Your task to perform on an android device: What's the news this afternoon? Image 0: 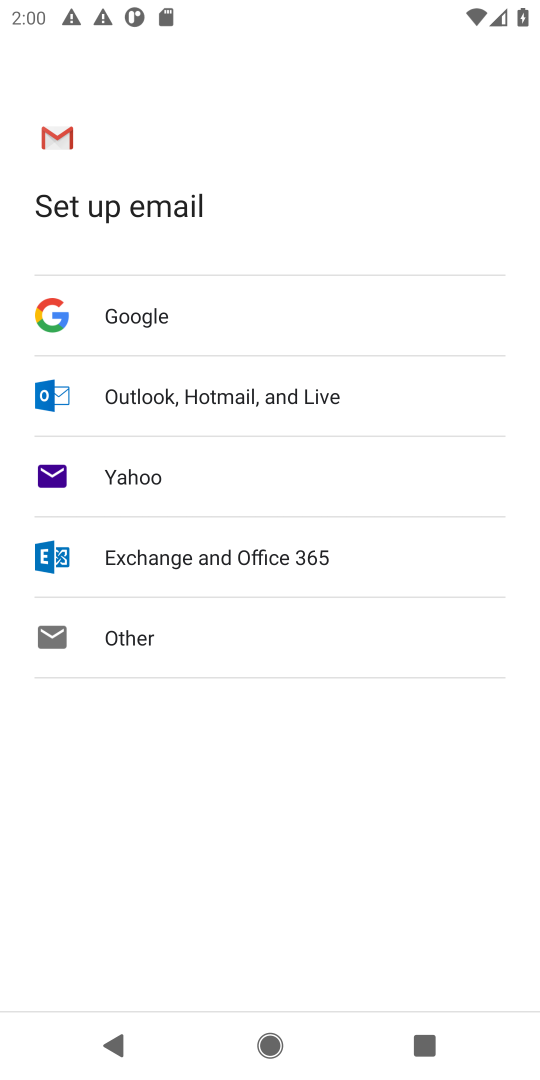
Step 0: press home button
Your task to perform on an android device: What's the news this afternoon? Image 1: 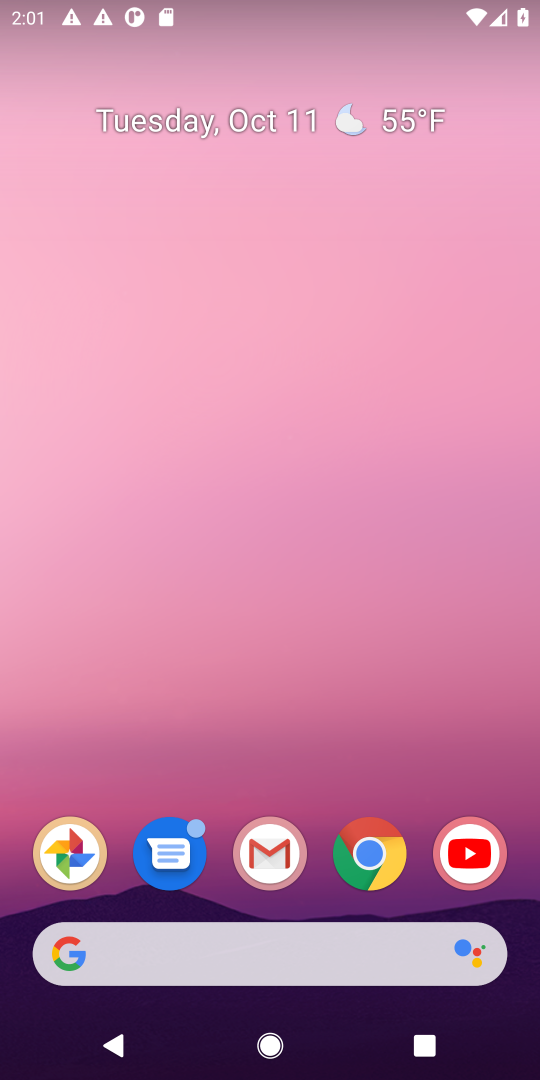
Step 1: drag from (240, 932) to (242, 97)
Your task to perform on an android device: What's the news this afternoon? Image 2: 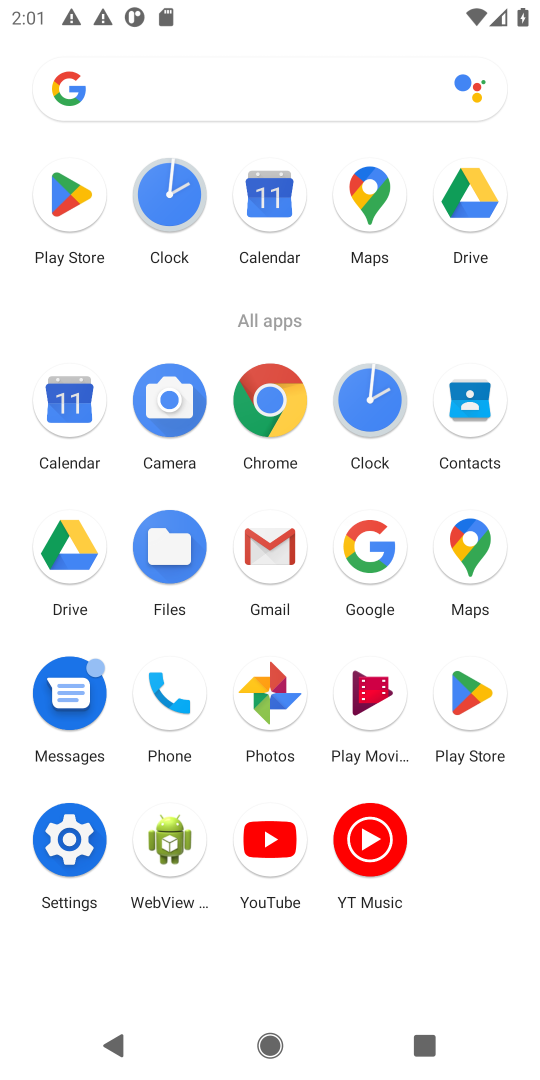
Step 2: click (368, 555)
Your task to perform on an android device: What's the news this afternoon? Image 3: 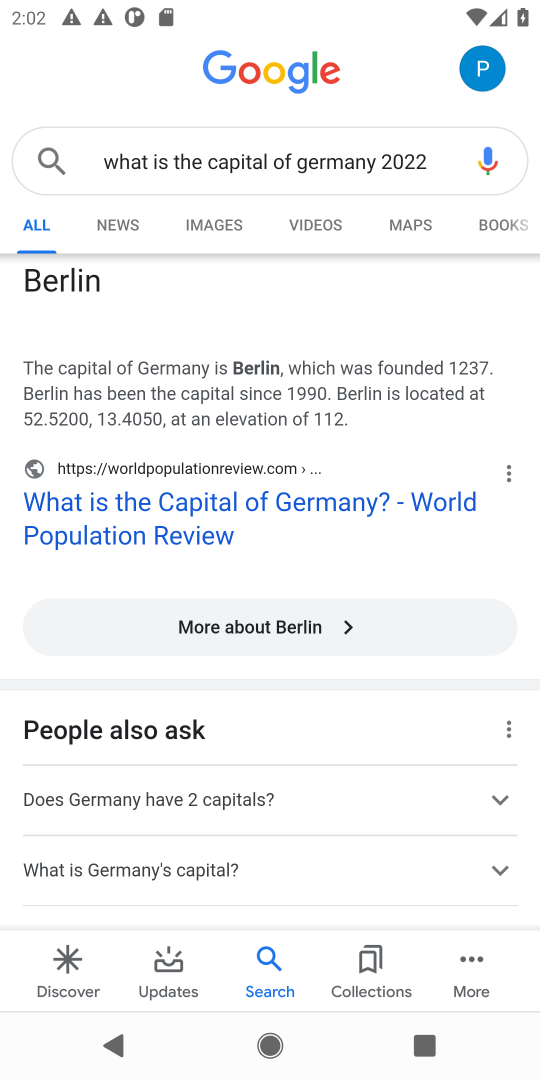
Step 3: click (271, 158)
Your task to perform on an android device: What's the news this afternoon? Image 4: 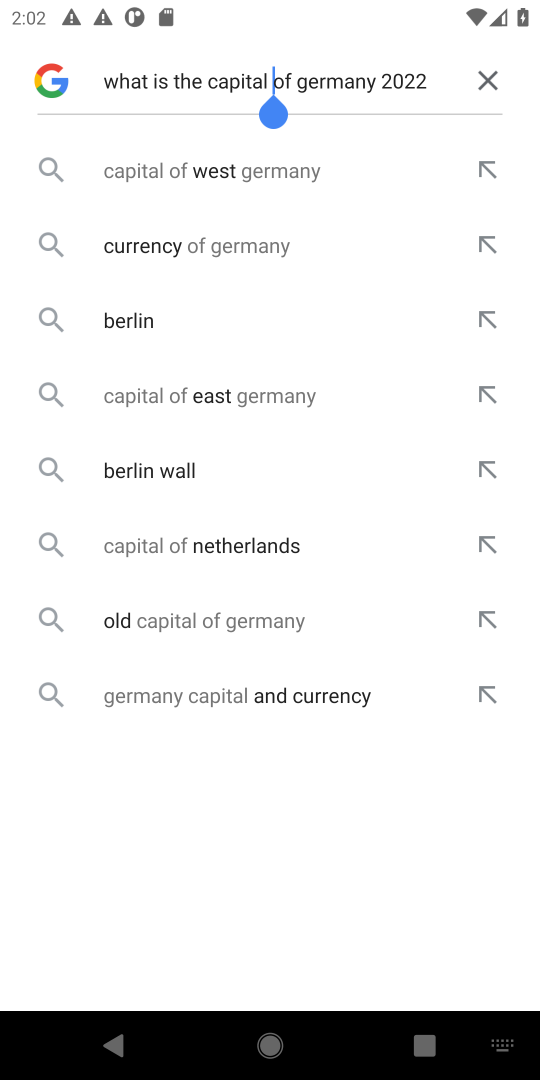
Step 4: click (484, 88)
Your task to perform on an android device: What's the news this afternoon? Image 5: 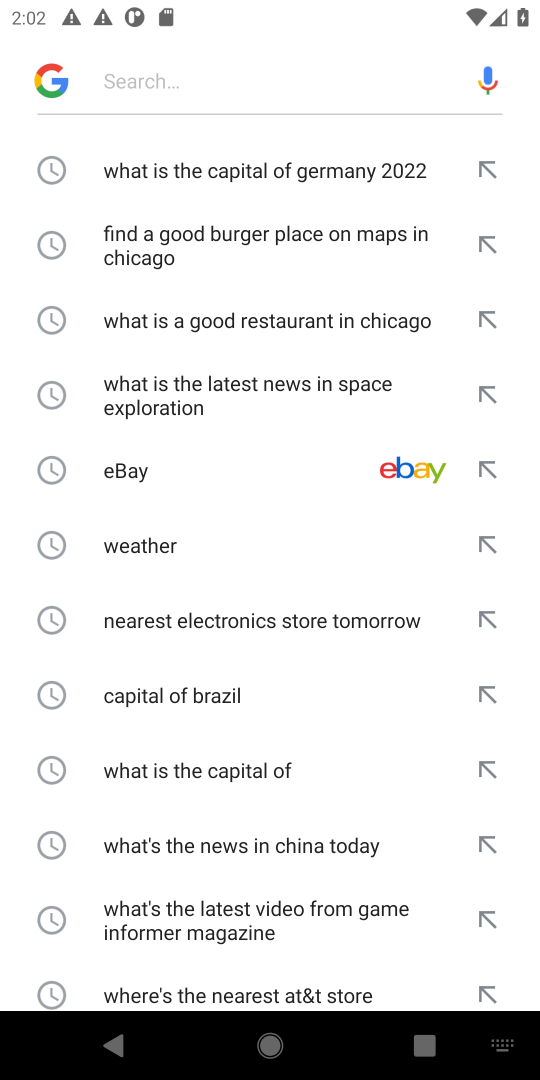
Step 5: type "What's the news this afternoon?"
Your task to perform on an android device: What's the news this afternoon? Image 6: 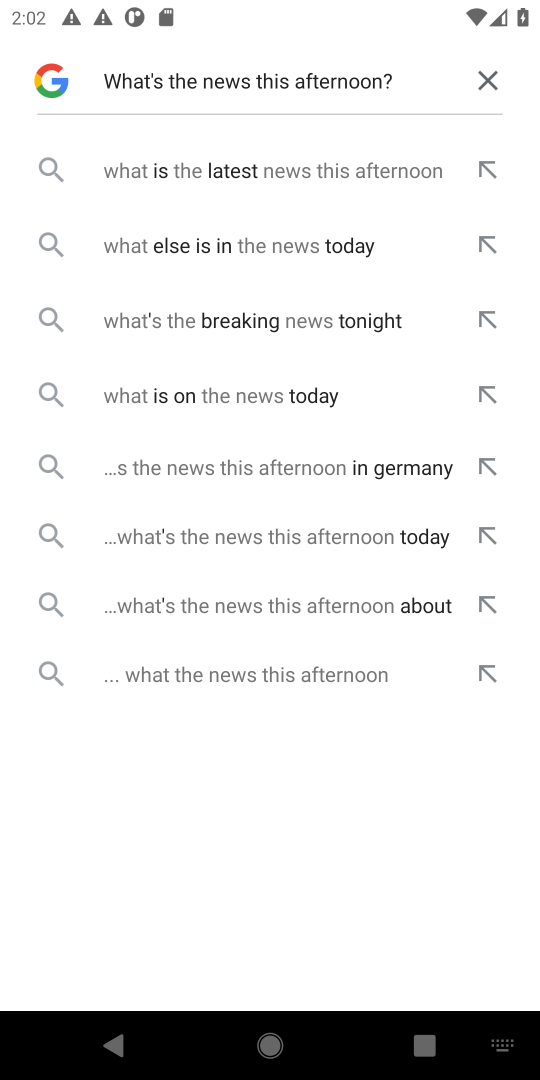
Step 6: click (312, 175)
Your task to perform on an android device: What's the news this afternoon? Image 7: 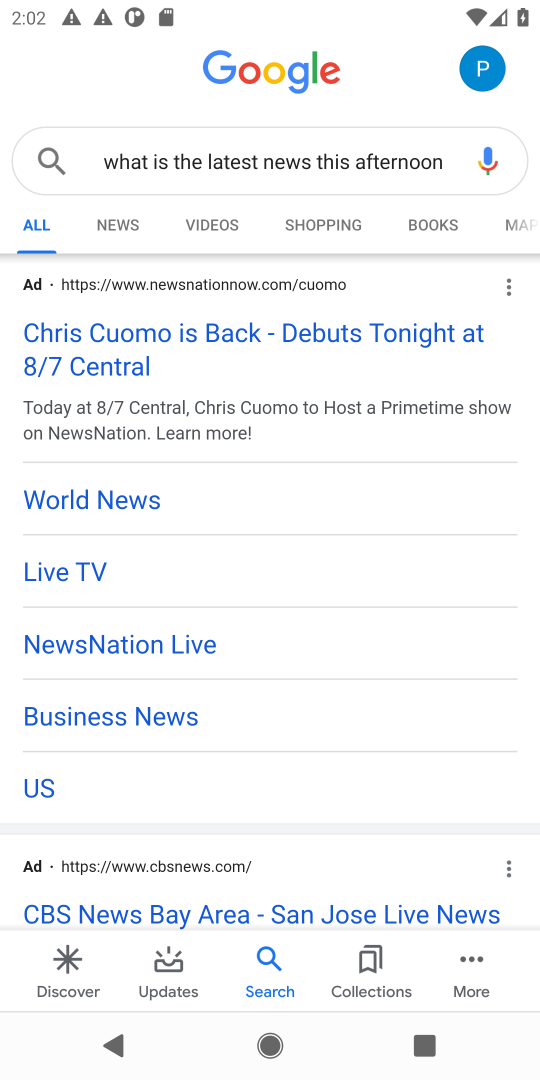
Step 7: click (178, 337)
Your task to perform on an android device: What's the news this afternoon? Image 8: 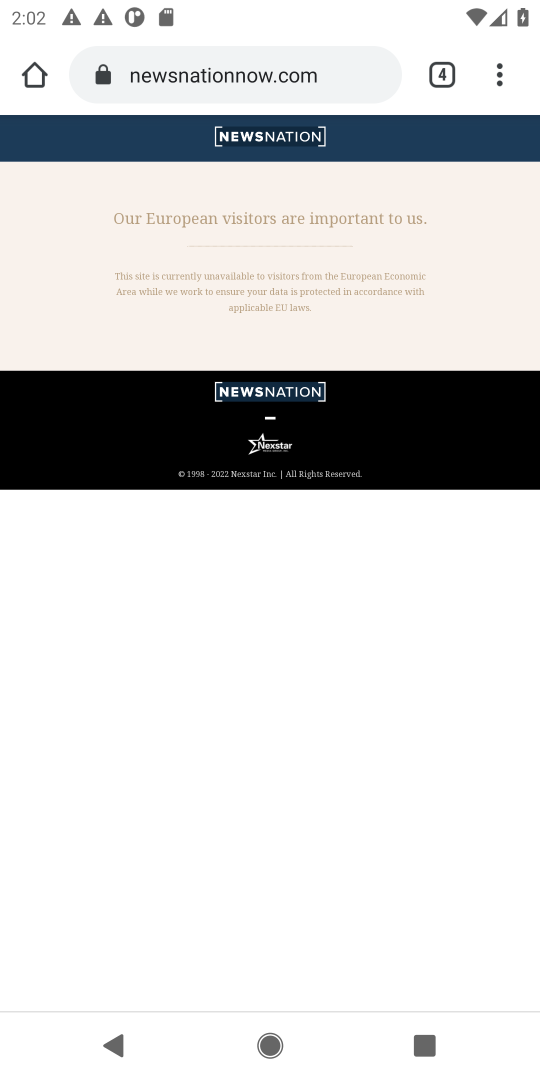
Step 8: task complete